Your task to perform on an android device: What's on my calendar tomorrow? Image 0: 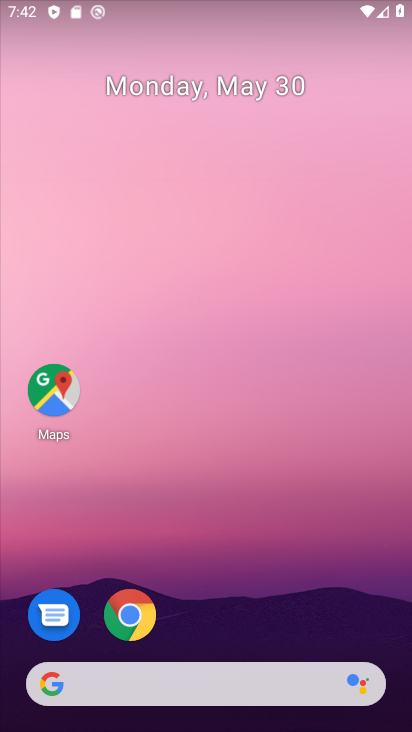
Step 0: drag from (94, 729) to (128, 47)
Your task to perform on an android device: What's on my calendar tomorrow? Image 1: 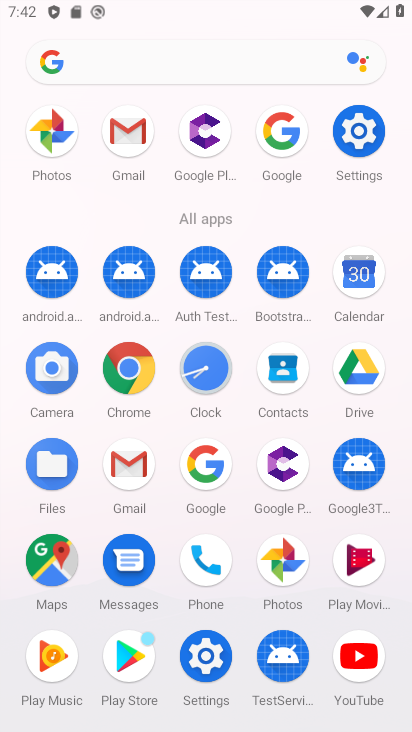
Step 1: click (371, 276)
Your task to perform on an android device: What's on my calendar tomorrow? Image 2: 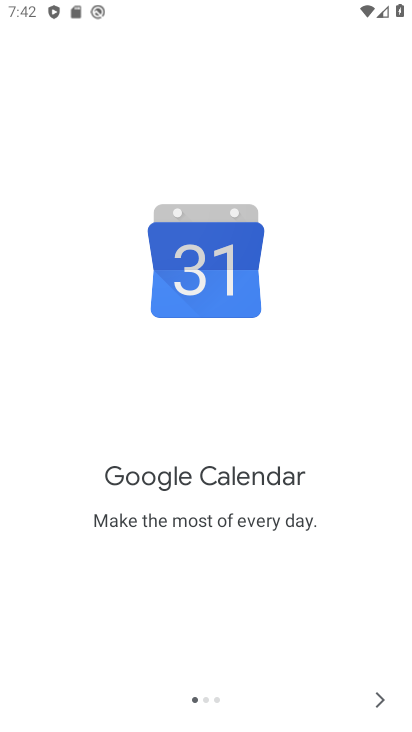
Step 2: click (377, 708)
Your task to perform on an android device: What's on my calendar tomorrow? Image 3: 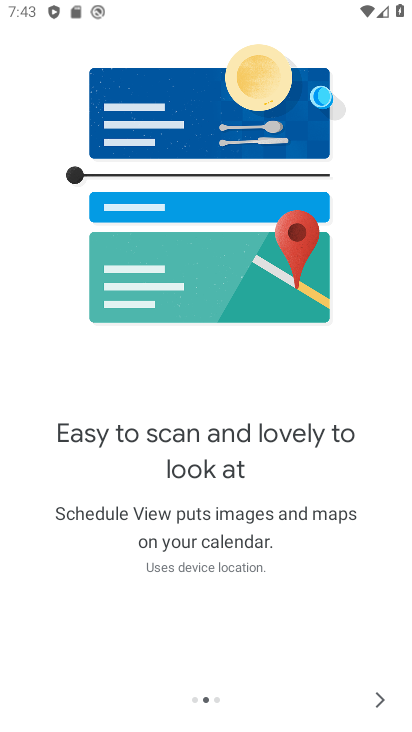
Step 3: click (371, 703)
Your task to perform on an android device: What's on my calendar tomorrow? Image 4: 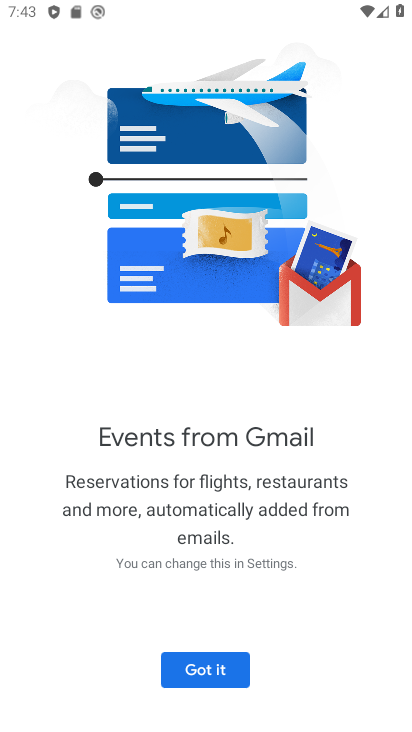
Step 4: click (223, 665)
Your task to perform on an android device: What's on my calendar tomorrow? Image 5: 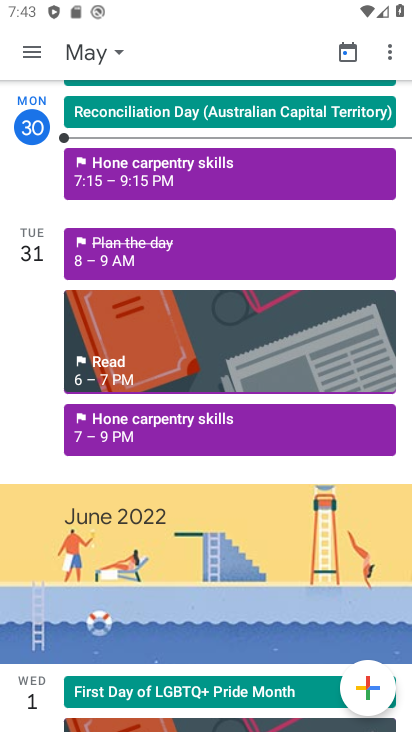
Step 5: click (130, 57)
Your task to perform on an android device: What's on my calendar tomorrow? Image 6: 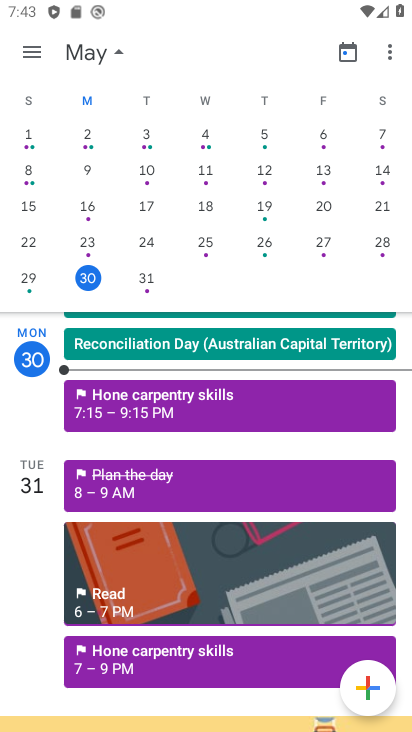
Step 6: click (133, 419)
Your task to perform on an android device: What's on my calendar tomorrow? Image 7: 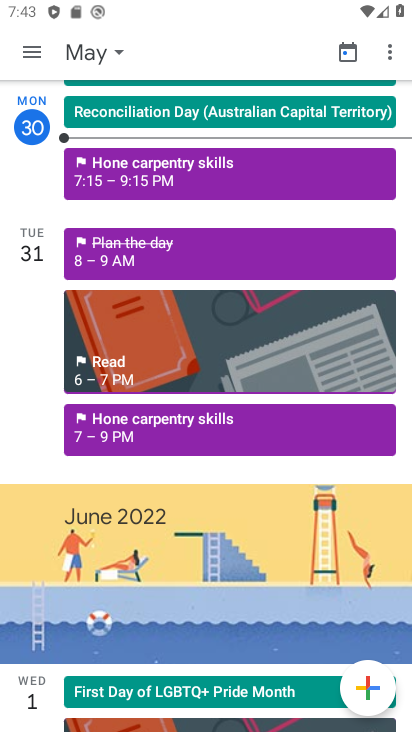
Step 7: click (158, 181)
Your task to perform on an android device: What's on my calendar tomorrow? Image 8: 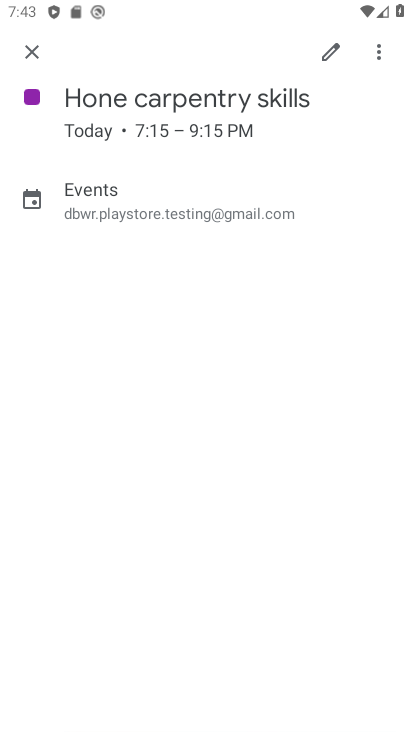
Step 8: click (31, 44)
Your task to perform on an android device: What's on my calendar tomorrow? Image 9: 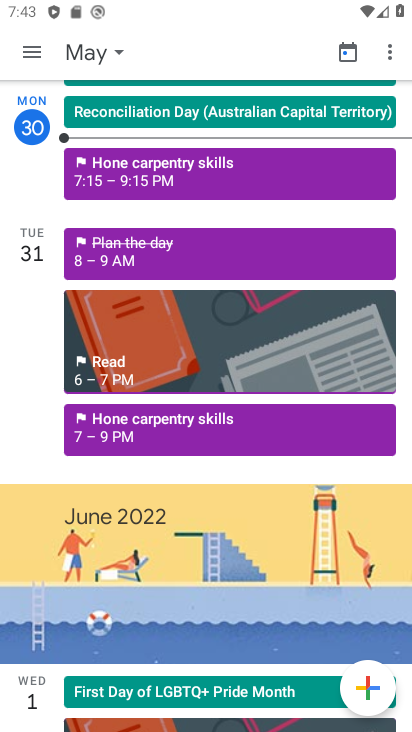
Step 9: task complete